Your task to perform on an android device: turn off sleep mode Image 0: 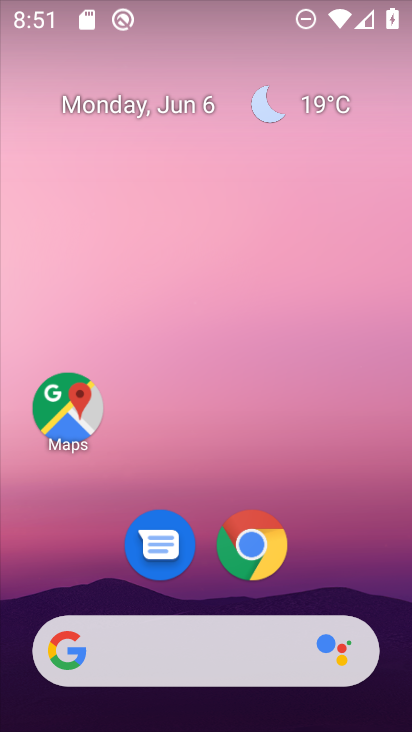
Step 0: drag from (192, 586) to (227, 171)
Your task to perform on an android device: turn off sleep mode Image 1: 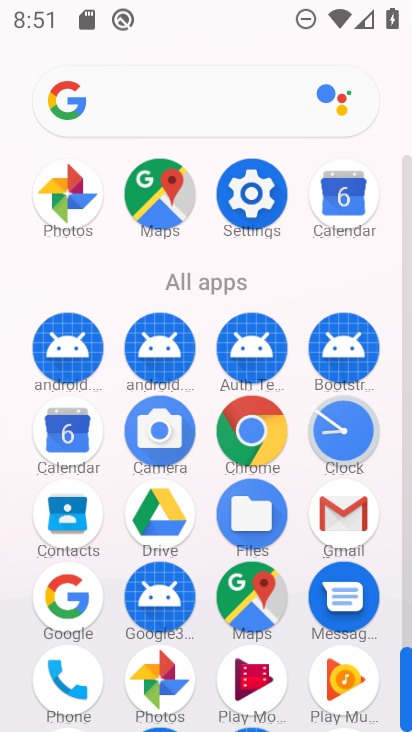
Step 1: click (261, 193)
Your task to perform on an android device: turn off sleep mode Image 2: 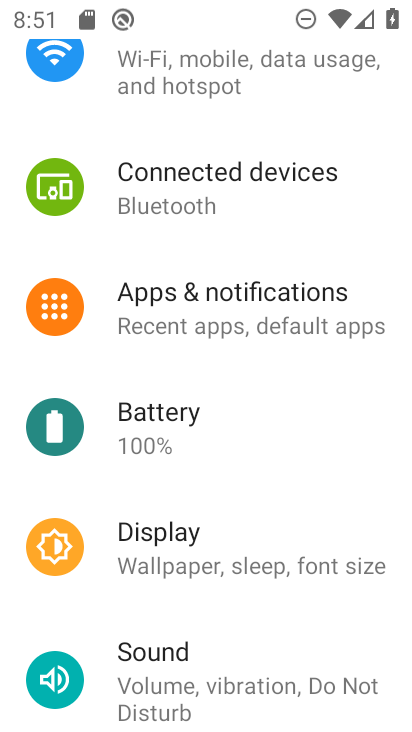
Step 2: drag from (252, 185) to (216, 548)
Your task to perform on an android device: turn off sleep mode Image 3: 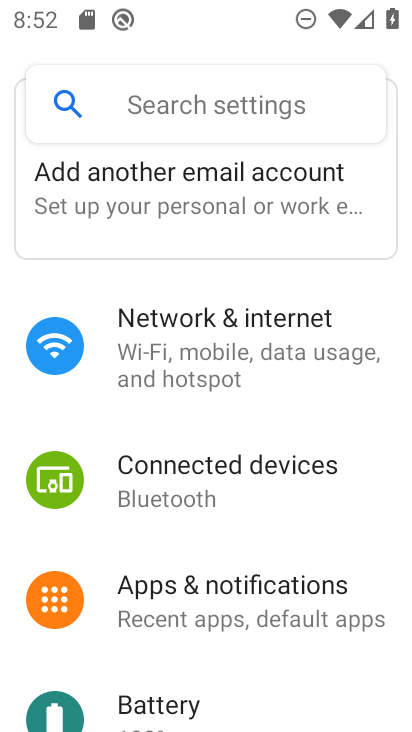
Step 3: click (225, 110)
Your task to perform on an android device: turn off sleep mode Image 4: 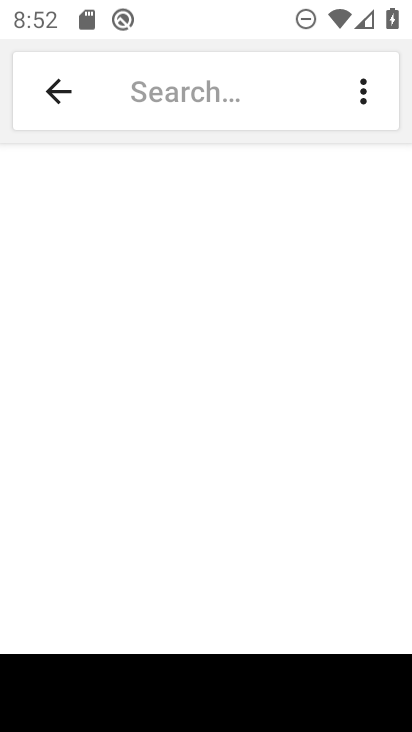
Step 4: type "sleep mode"
Your task to perform on an android device: turn off sleep mode Image 5: 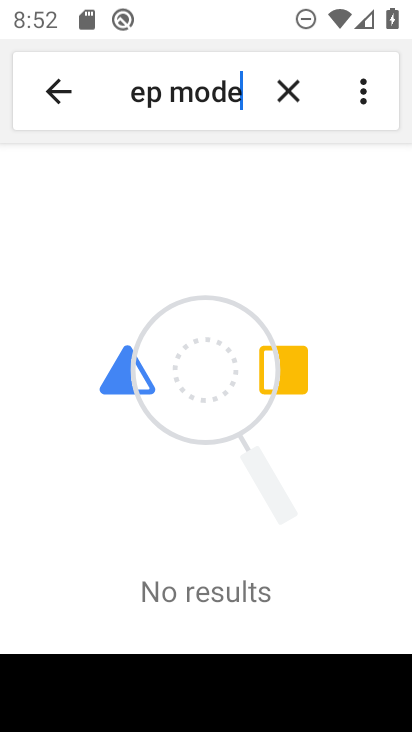
Step 5: task complete